Your task to perform on an android device: Add macbook pro 15 inch to the cart on bestbuy, then select checkout. Image 0: 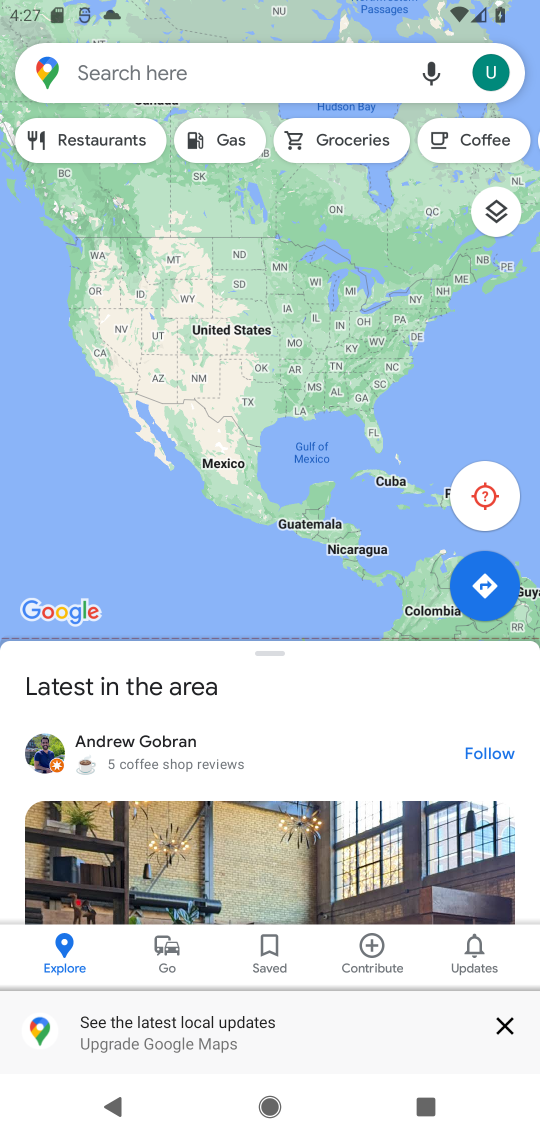
Step 0: press home button
Your task to perform on an android device: Add macbook pro 15 inch to the cart on bestbuy, then select checkout. Image 1: 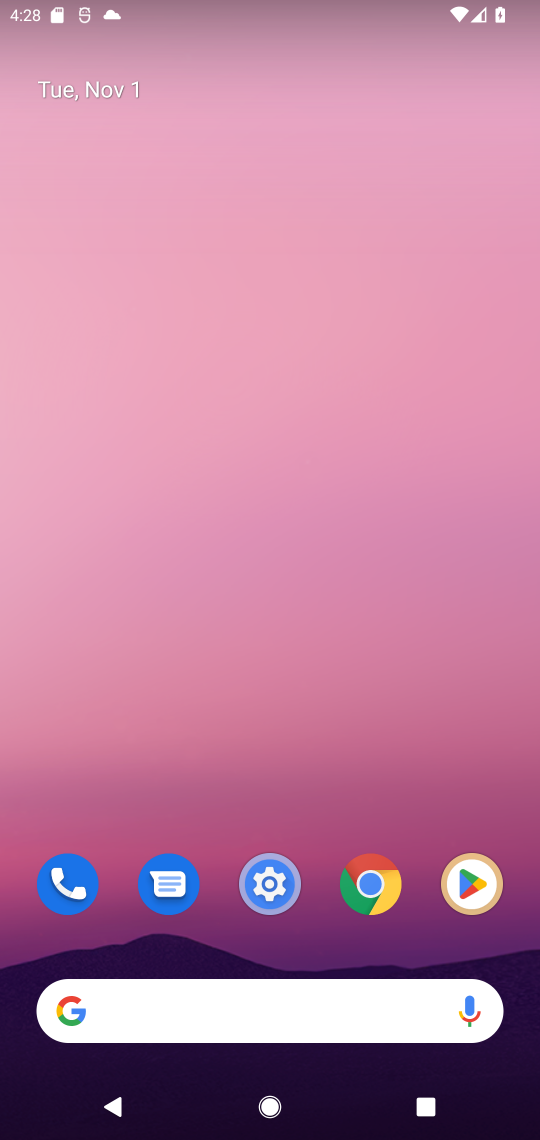
Step 1: click (116, 999)
Your task to perform on an android device: Add macbook pro 15 inch to the cart on bestbuy, then select checkout. Image 2: 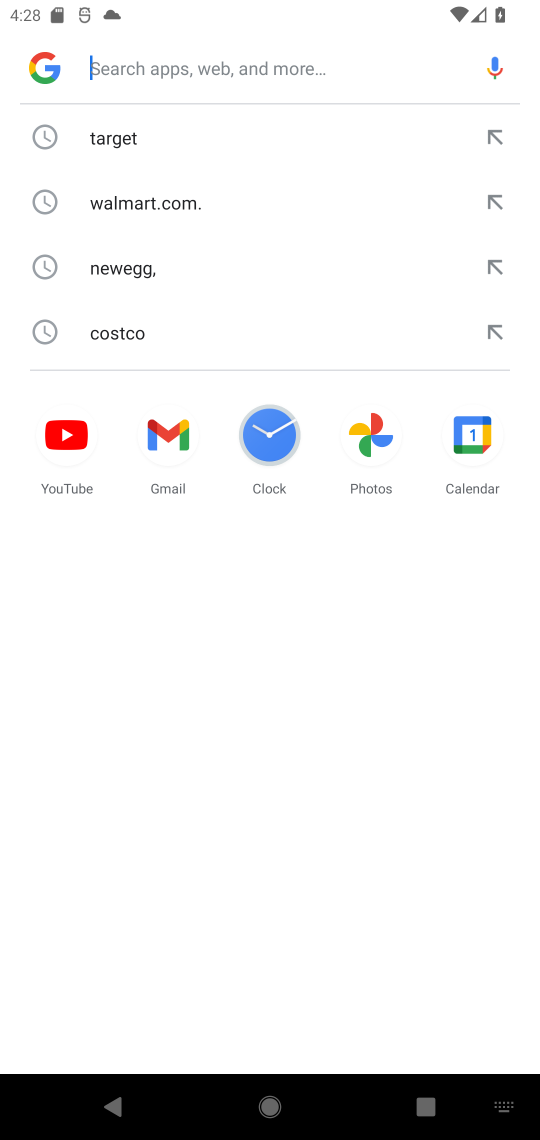
Step 2: type "bestbuy"
Your task to perform on an android device: Add macbook pro 15 inch to the cart on bestbuy, then select checkout. Image 3: 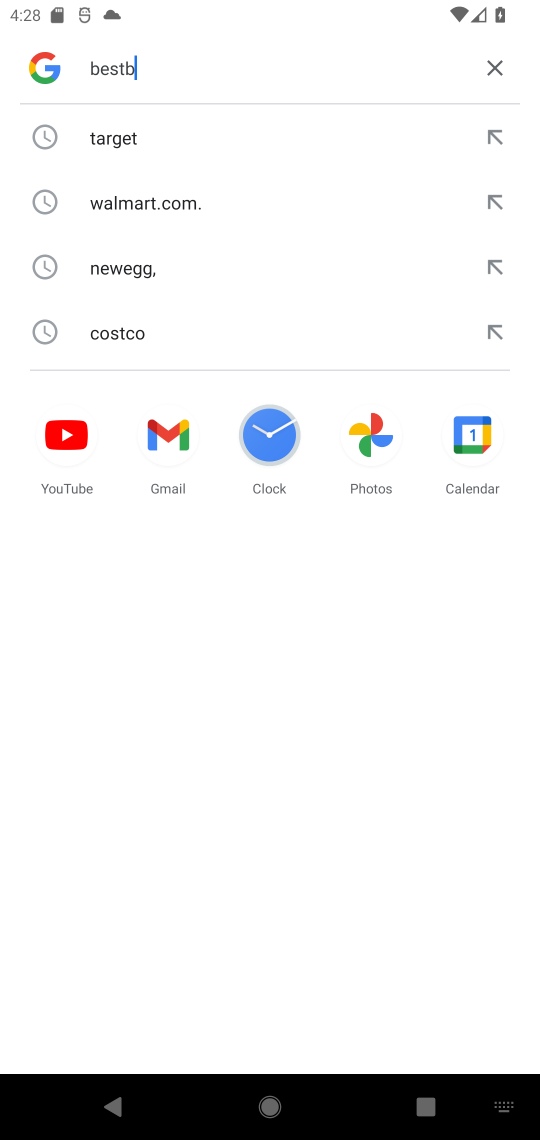
Step 3: press enter
Your task to perform on an android device: Add macbook pro 15 inch to the cart on bestbuy, then select checkout. Image 4: 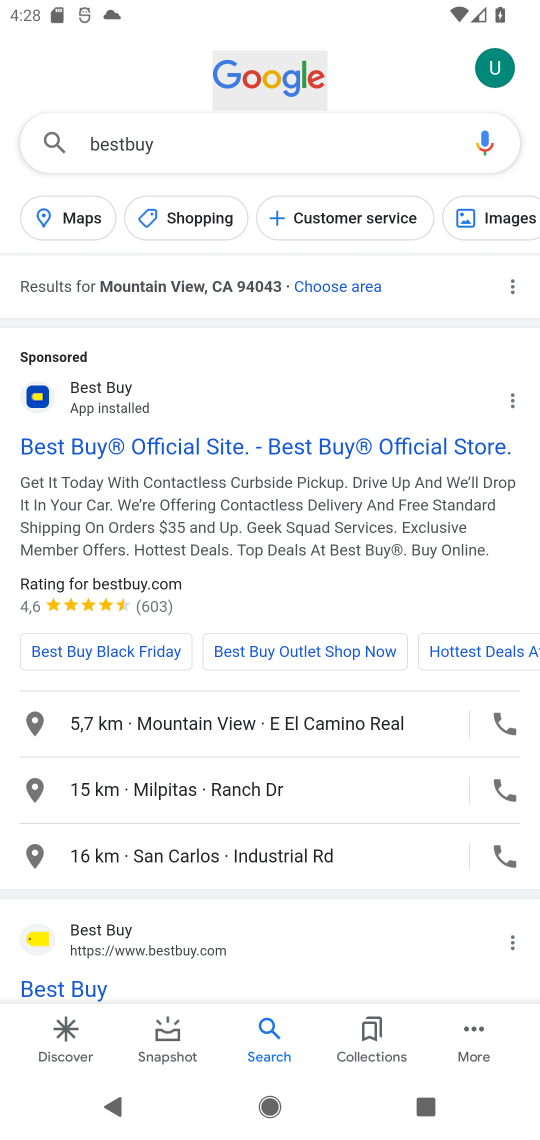
Step 4: click (240, 444)
Your task to perform on an android device: Add macbook pro 15 inch to the cart on bestbuy, then select checkout. Image 5: 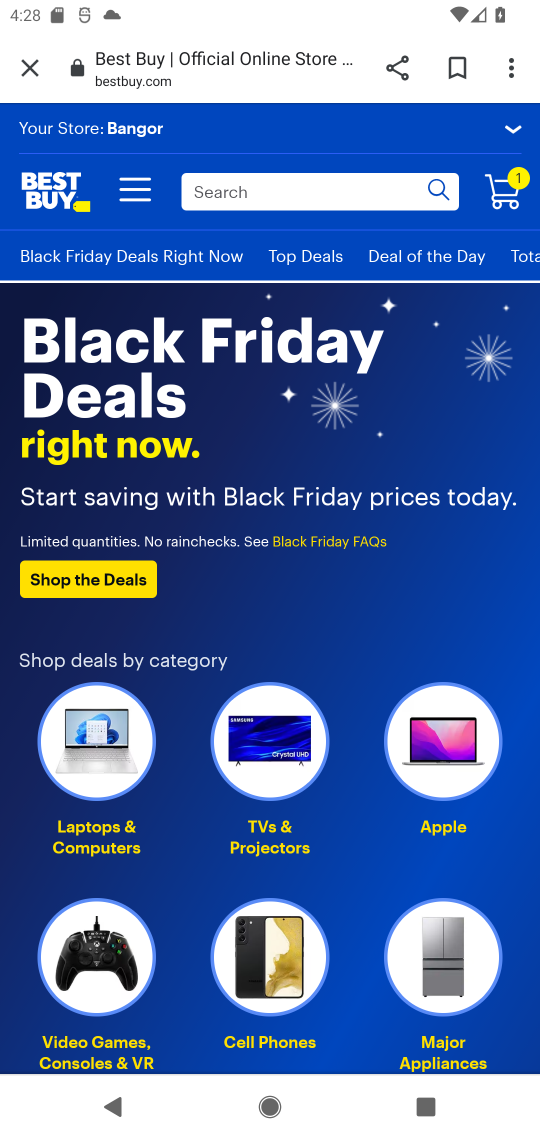
Step 5: click (235, 192)
Your task to perform on an android device: Add macbook pro 15 inch to the cart on bestbuy, then select checkout. Image 6: 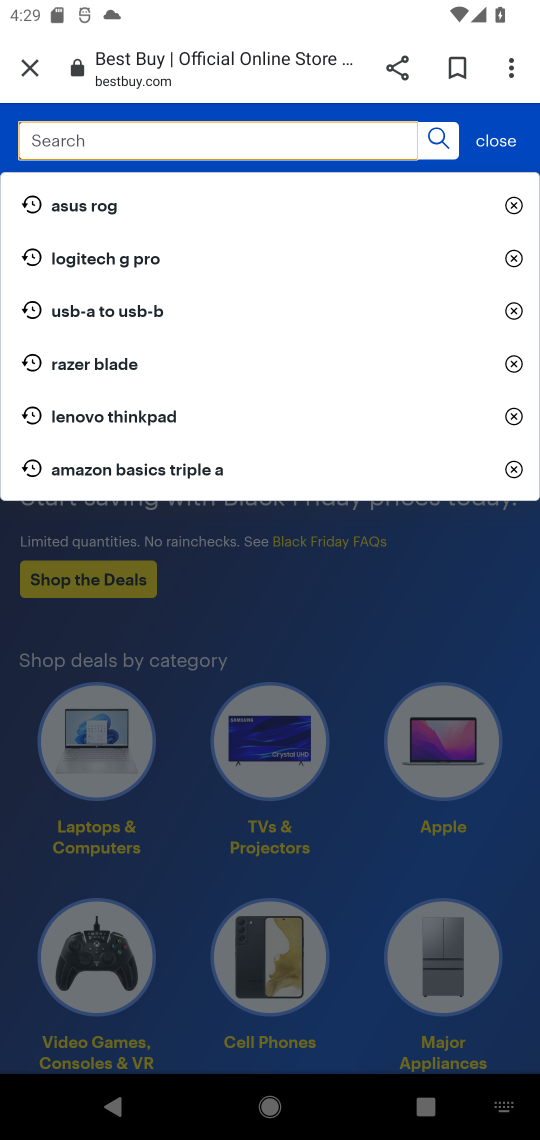
Step 6: press enter
Your task to perform on an android device: Add macbook pro 15 inch to the cart on bestbuy, then select checkout. Image 7: 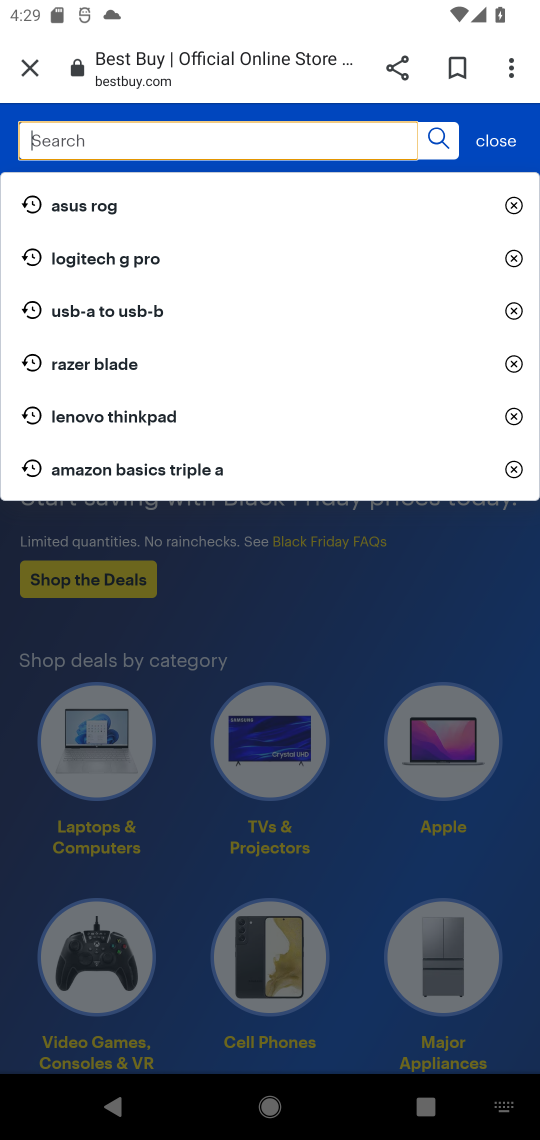
Step 7: type "macbook pro 15 inch"
Your task to perform on an android device: Add macbook pro 15 inch to the cart on bestbuy, then select checkout. Image 8: 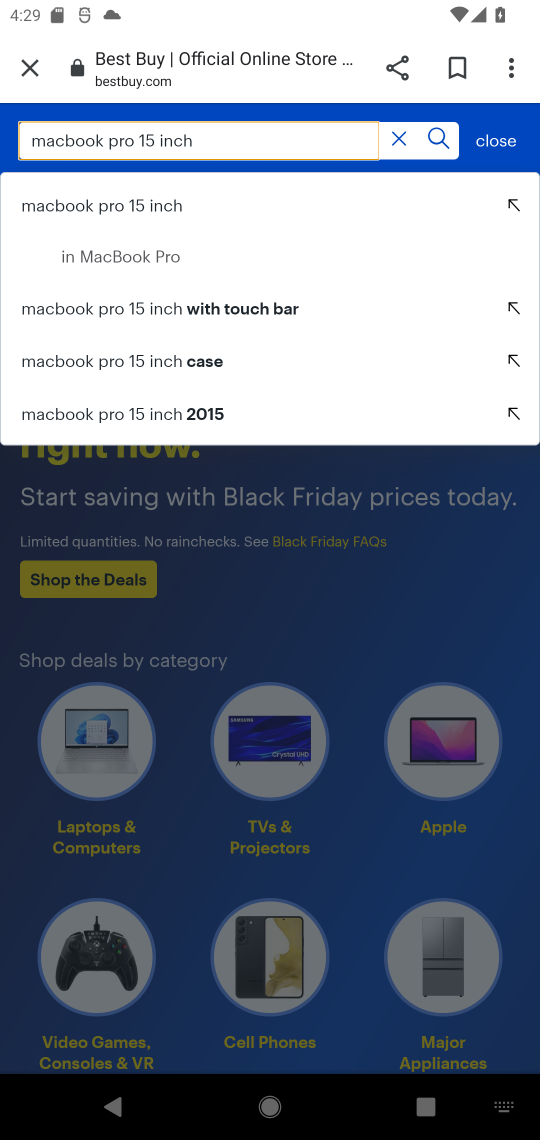
Step 8: click (440, 134)
Your task to perform on an android device: Add macbook pro 15 inch to the cart on bestbuy, then select checkout. Image 9: 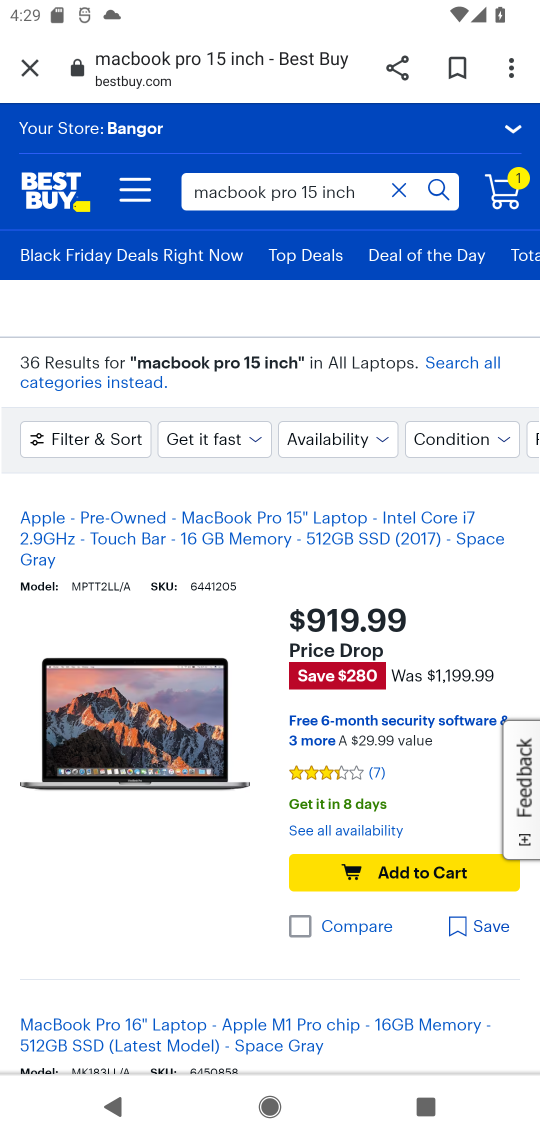
Step 9: click (385, 881)
Your task to perform on an android device: Add macbook pro 15 inch to the cart on bestbuy, then select checkout. Image 10: 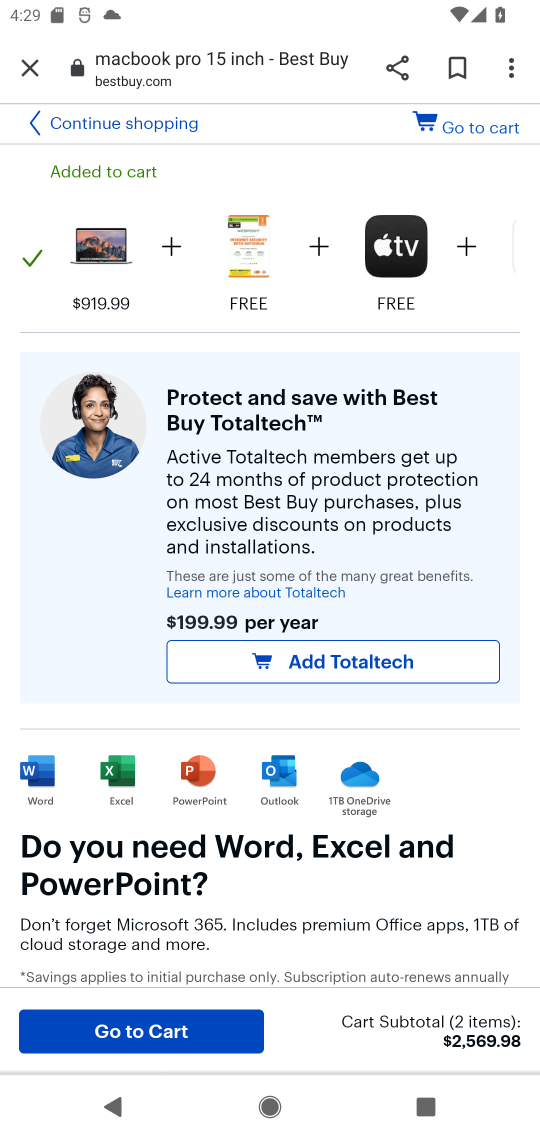
Step 10: click (113, 1029)
Your task to perform on an android device: Add macbook pro 15 inch to the cart on bestbuy, then select checkout. Image 11: 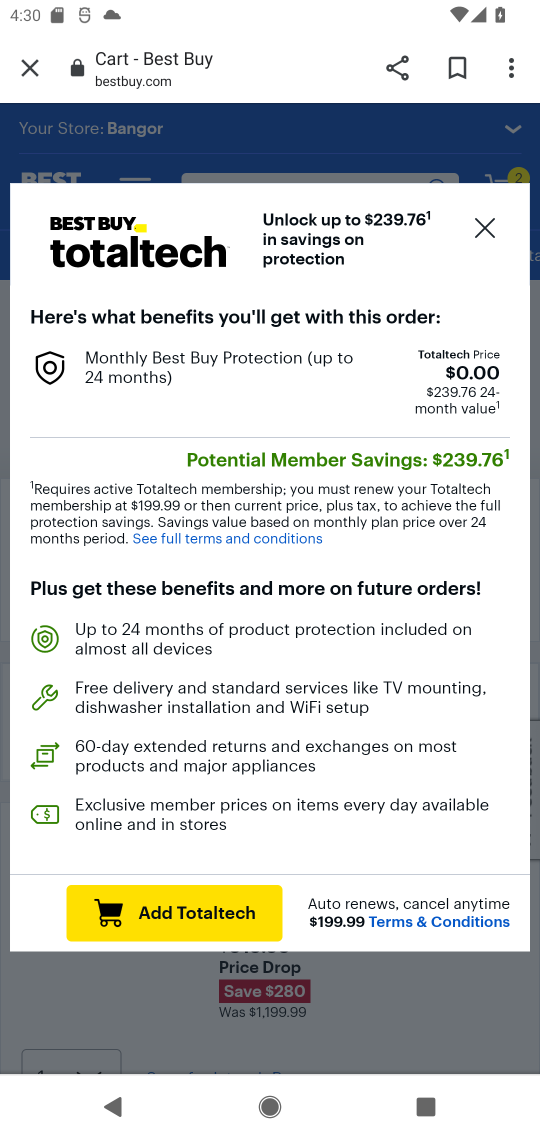
Step 11: click (483, 213)
Your task to perform on an android device: Add macbook pro 15 inch to the cart on bestbuy, then select checkout. Image 12: 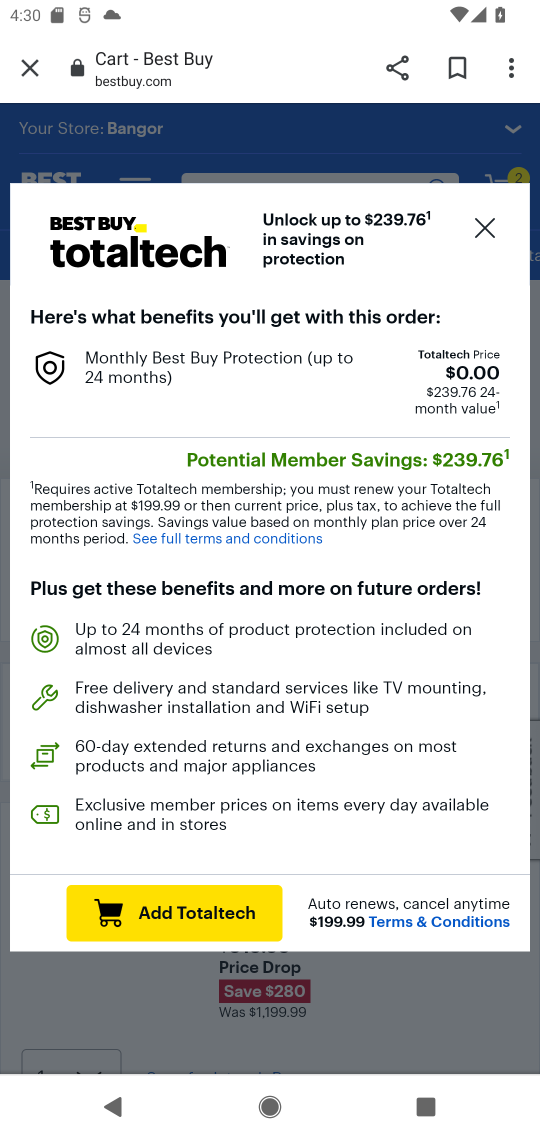
Step 12: click (480, 223)
Your task to perform on an android device: Add macbook pro 15 inch to the cart on bestbuy, then select checkout. Image 13: 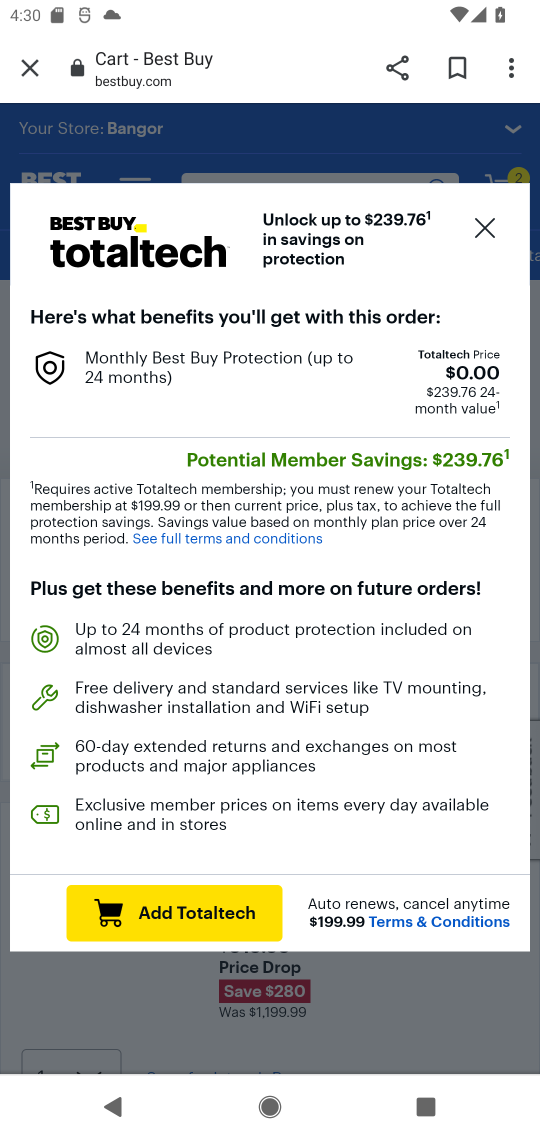
Step 13: click (487, 228)
Your task to perform on an android device: Add macbook pro 15 inch to the cart on bestbuy, then select checkout. Image 14: 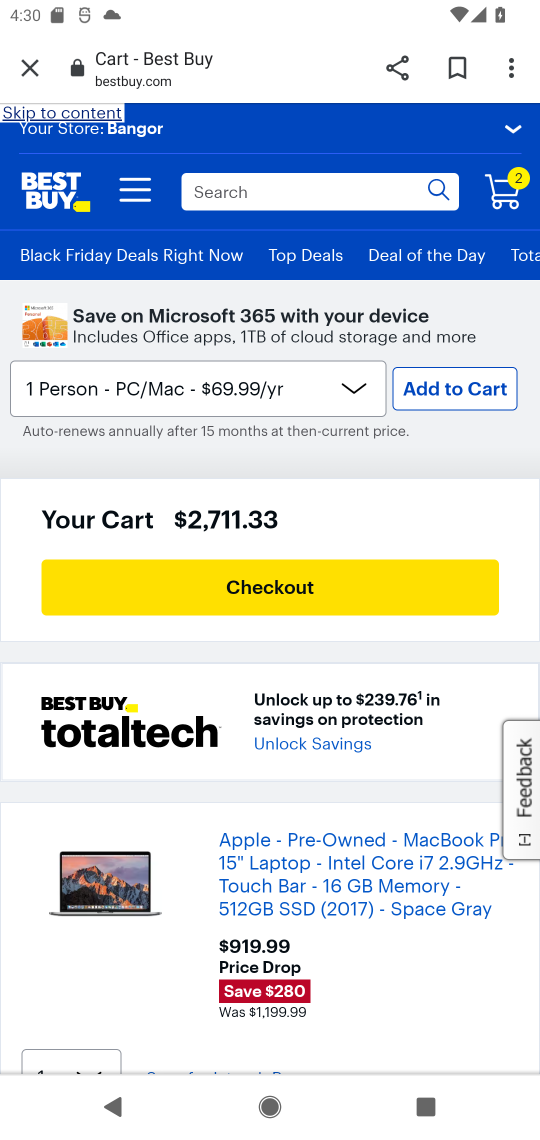
Step 14: click (307, 582)
Your task to perform on an android device: Add macbook pro 15 inch to the cart on bestbuy, then select checkout. Image 15: 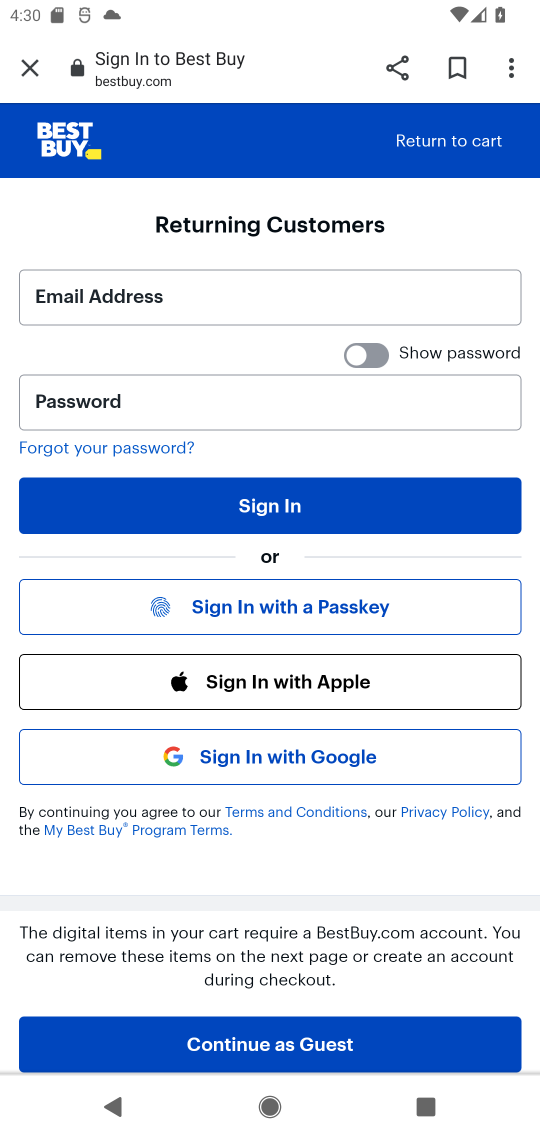
Step 15: task complete